Your task to perform on an android device: turn on location history Image 0: 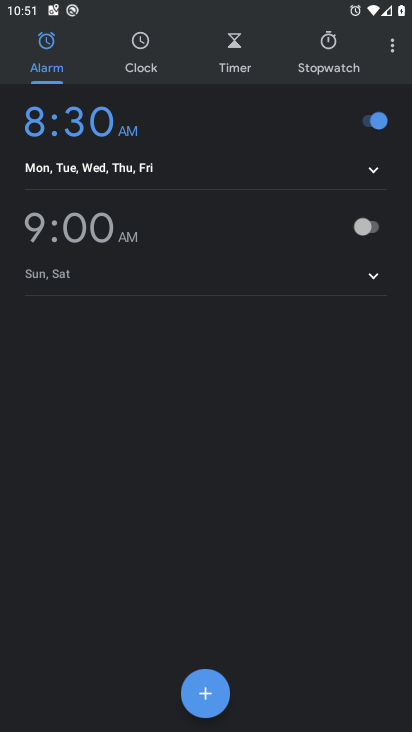
Step 0: press home button
Your task to perform on an android device: turn on location history Image 1: 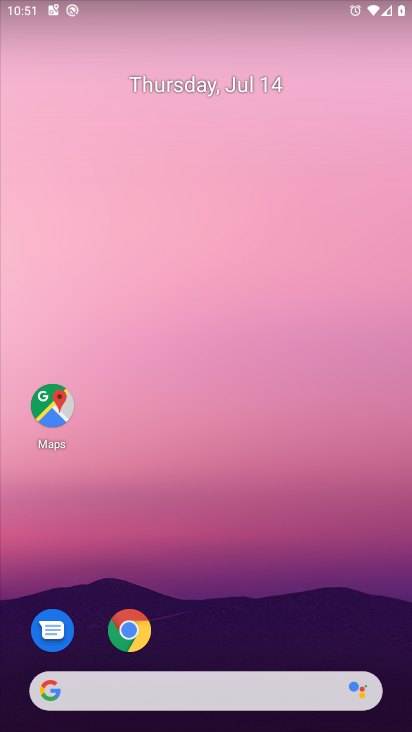
Step 1: drag from (80, 586) to (259, 18)
Your task to perform on an android device: turn on location history Image 2: 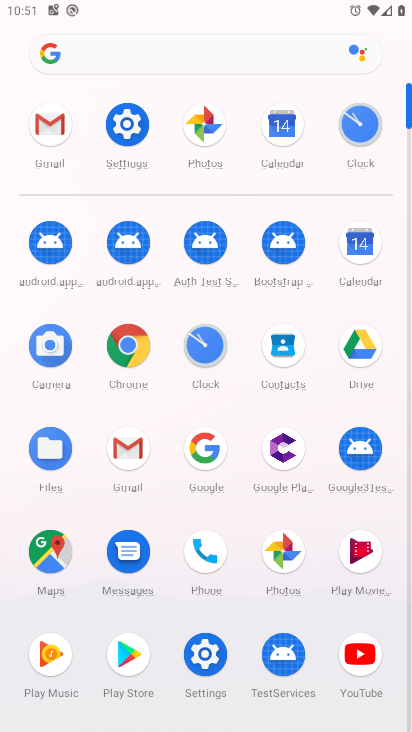
Step 2: click (209, 650)
Your task to perform on an android device: turn on location history Image 3: 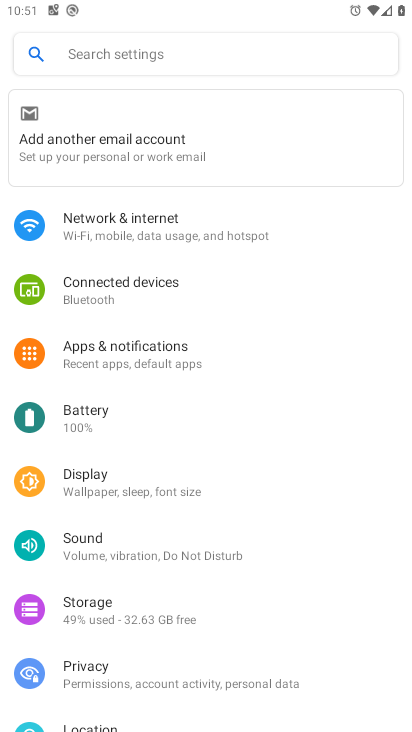
Step 3: drag from (311, 648) to (303, 401)
Your task to perform on an android device: turn on location history Image 4: 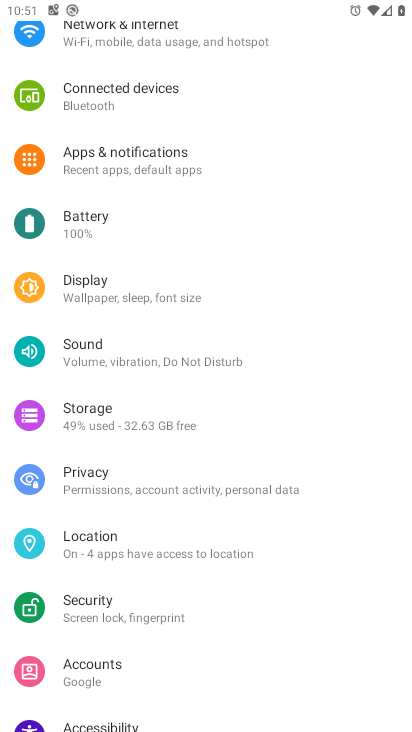
Step 4: click (119, 551)
Your task to perform on an android device: turn on location history Image 5: 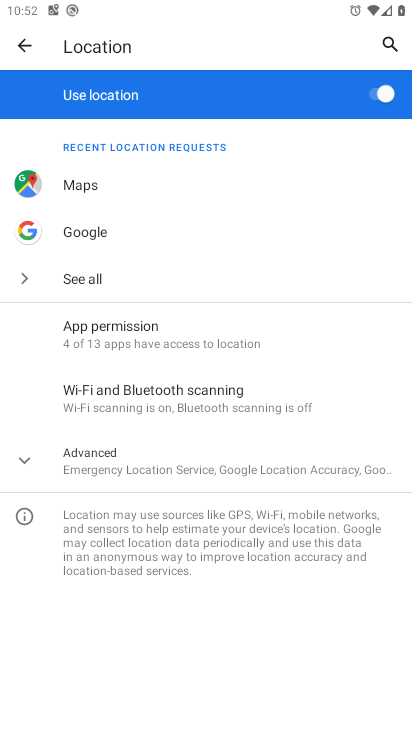
Step 5: click (260, 465)
Your task to perform on an android device: turn on location history Image 6: 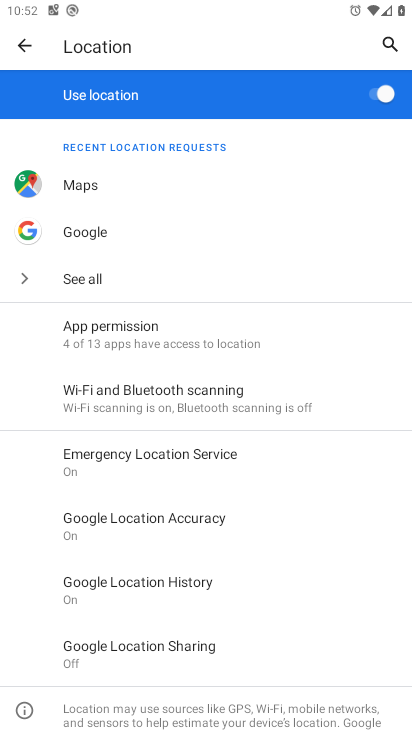
Step 6: click (141, 592)
Your task to perform on an android device: turn on location history Image 7: 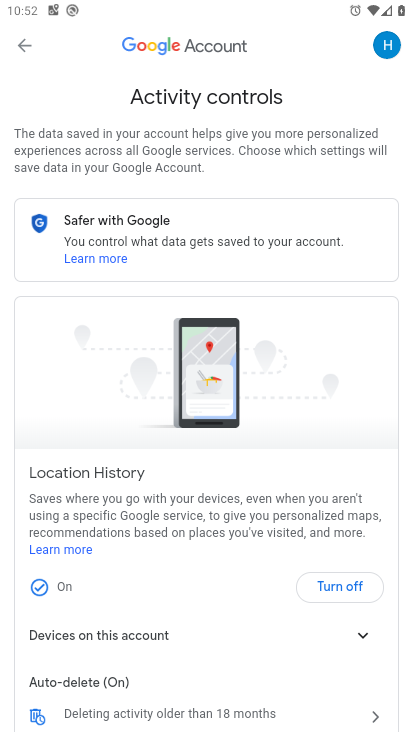
Step 7: task complete